Your task to perform on an android device: Find coffee shops on Maps Image 0: 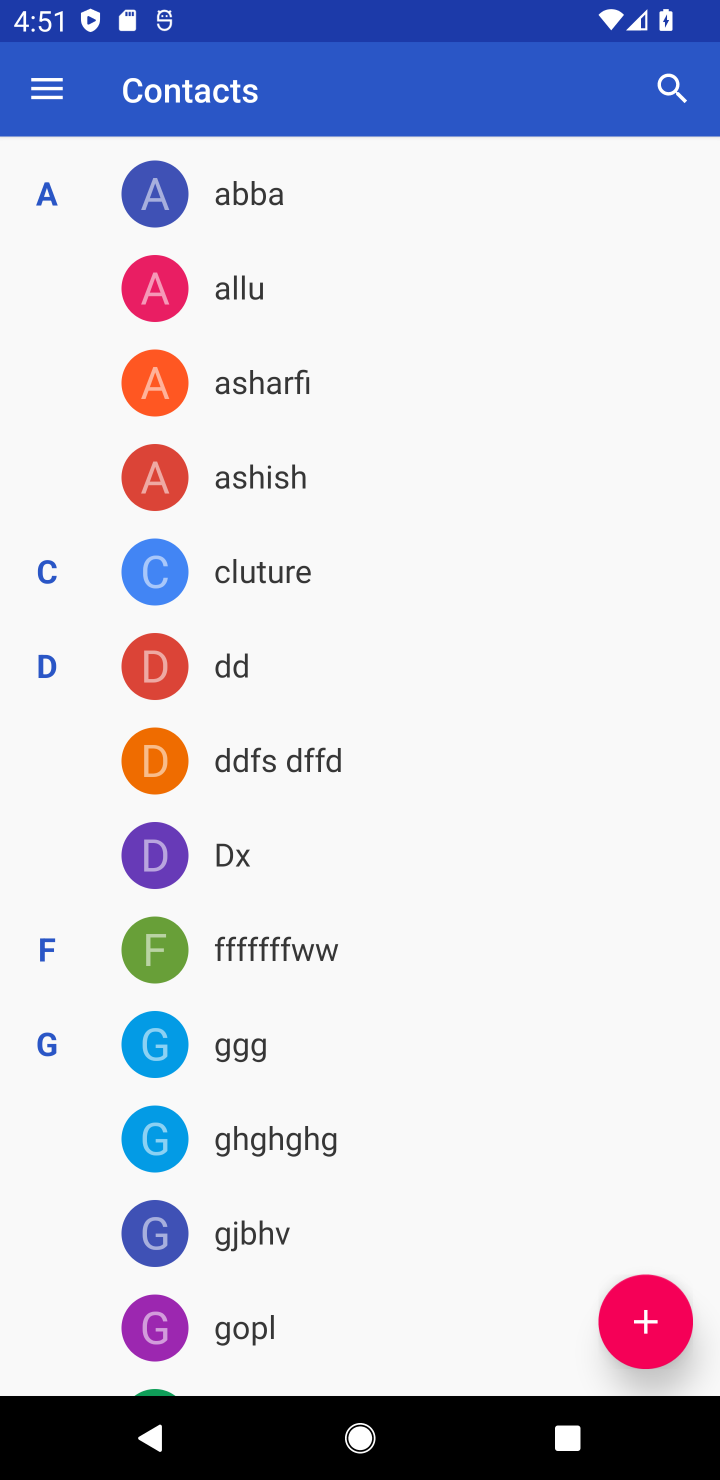
Step 0: press home button
Your task to perform on an android device: Find coffee shops on Maps Image 1: 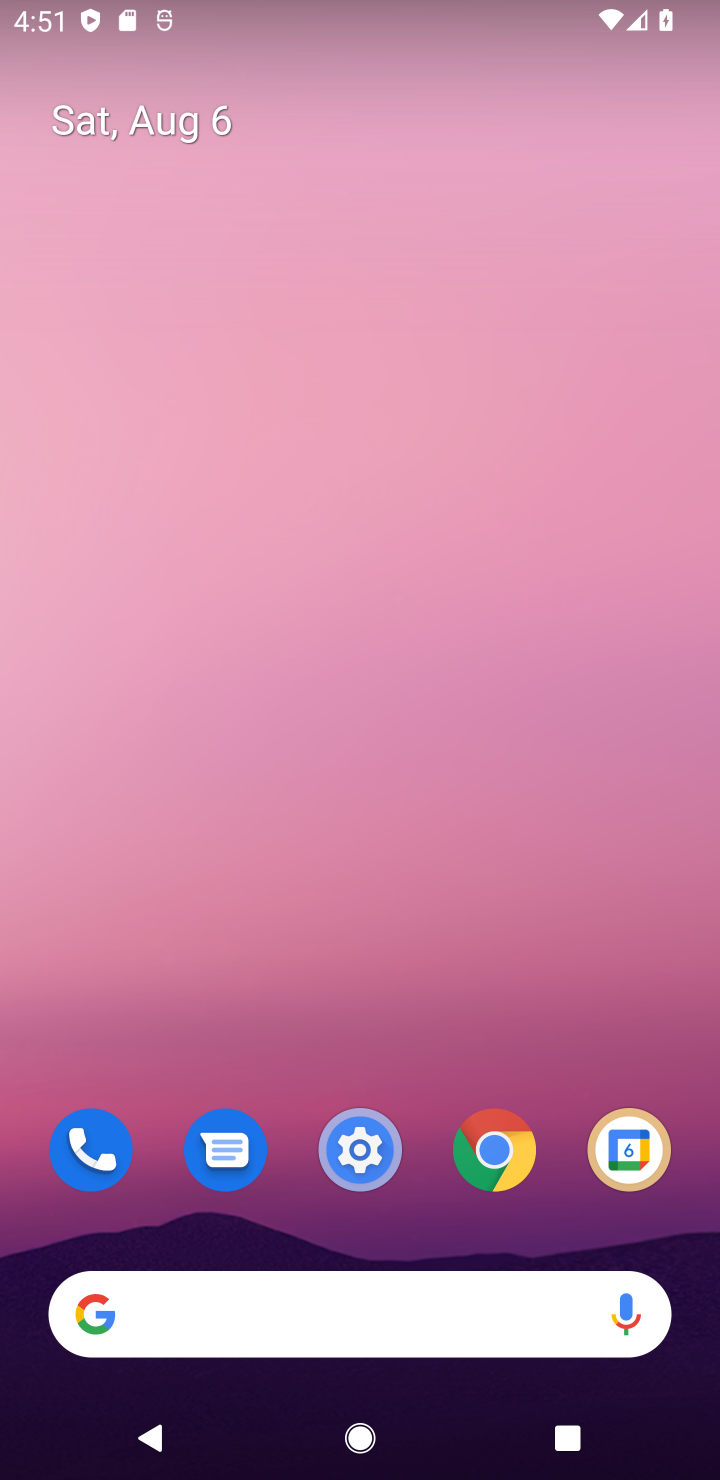
Step 1: drag from (467, 926) to (467, 212)
Your task to perform on an android device: Find coffee shops on Maps Image 2: 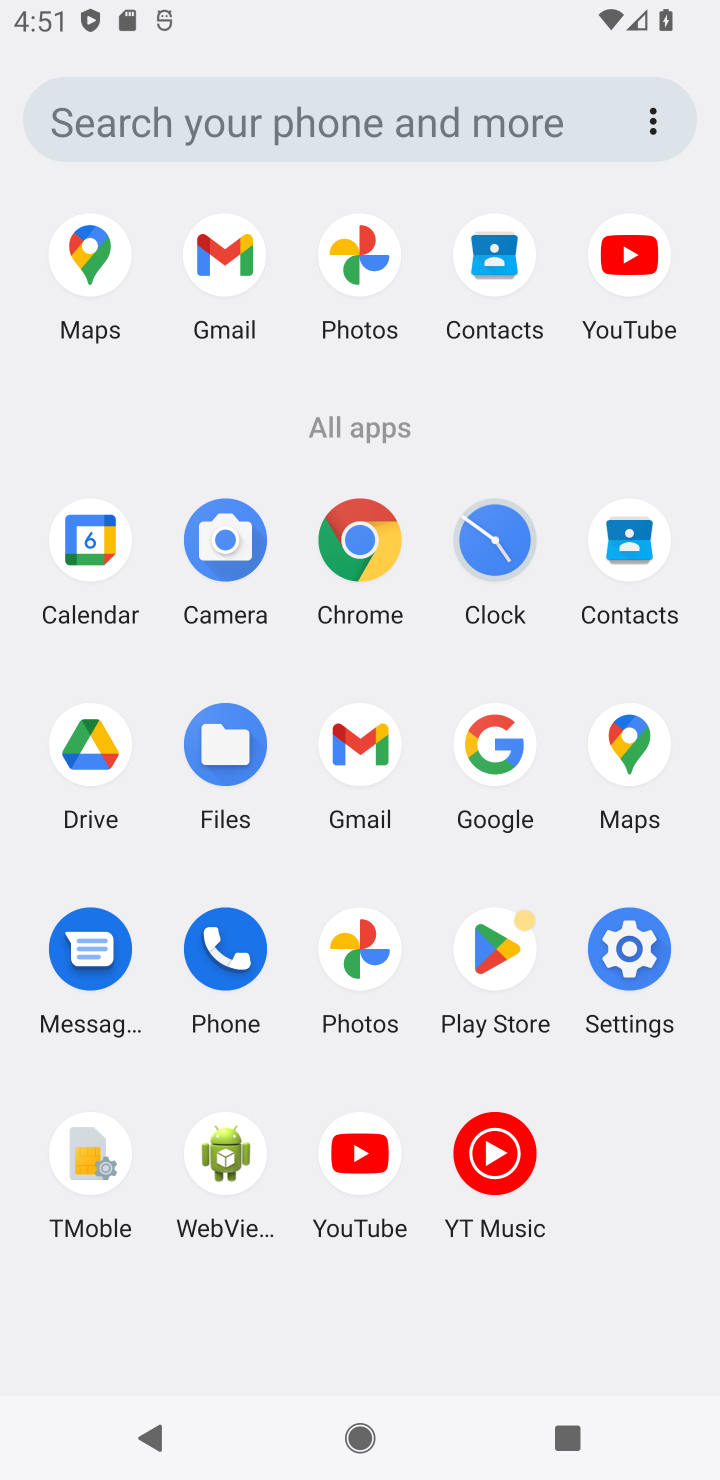
Step 2: click (623, 747)
Your task to perform on an android device: Find coffee shops on Maps Image 3: 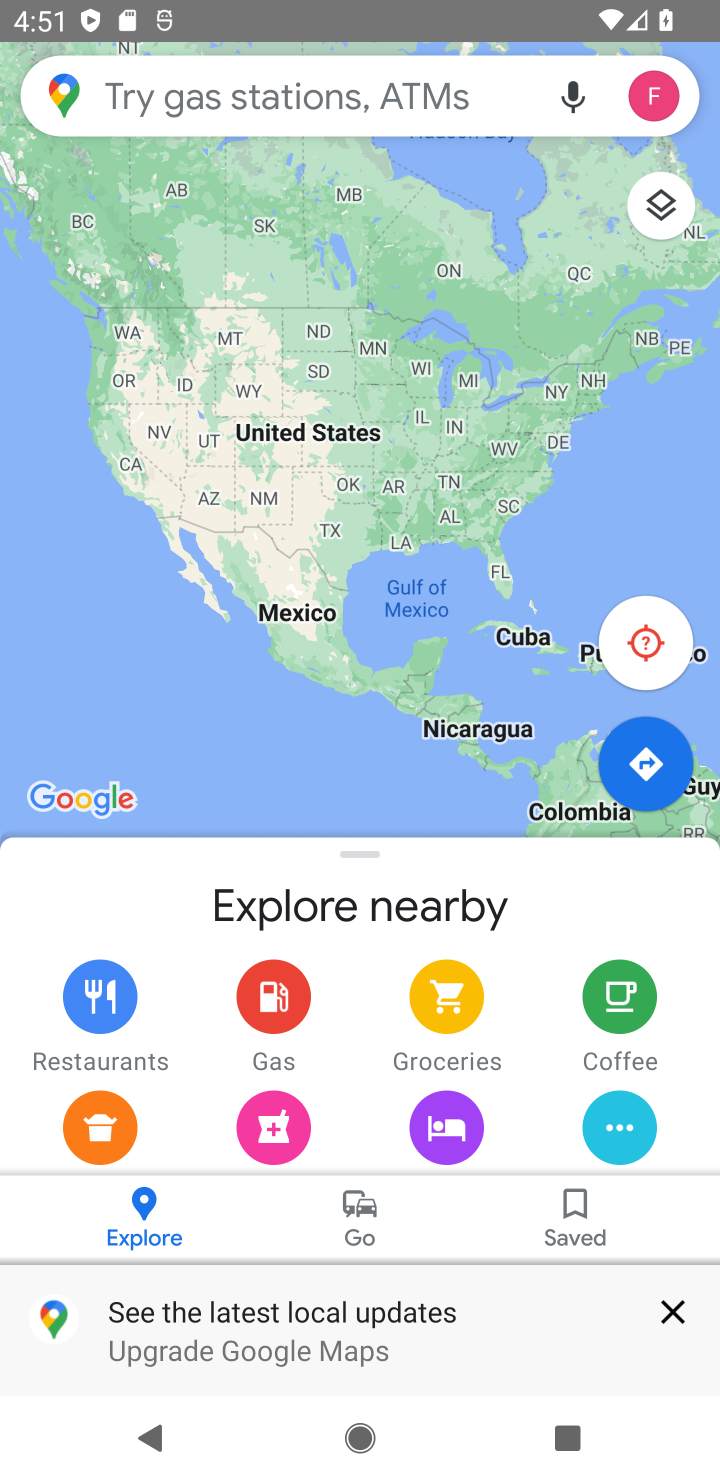
Step 3: click (228, 101)
Your task to perform on an android device: Find coffee shops on Maps Image 4: 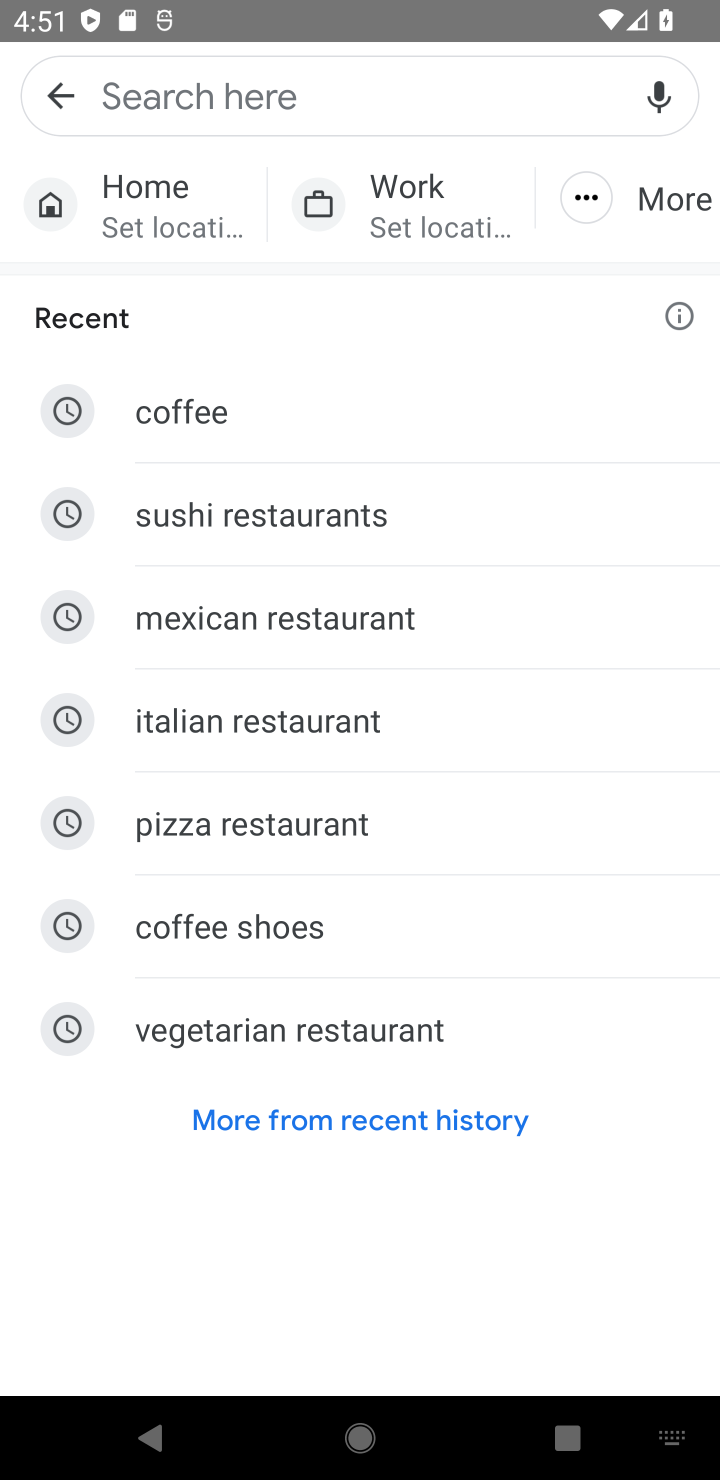
Step 4: type "coffee shops"
Your task to perform on an android device: Find coffee shops on Maps Image 5: 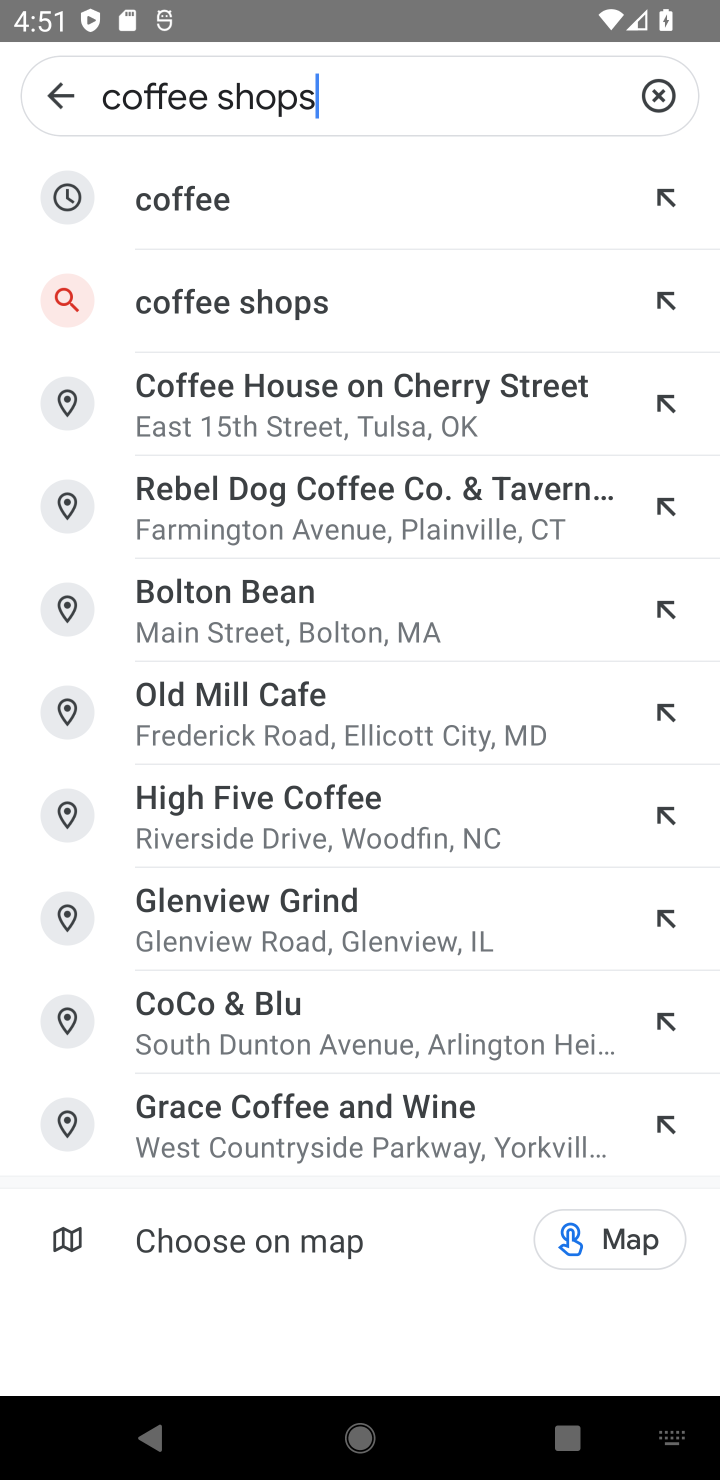
Step 5: click (277, 280)
Your task to perform on an android device: Find coffee shops on Maps Image 6: 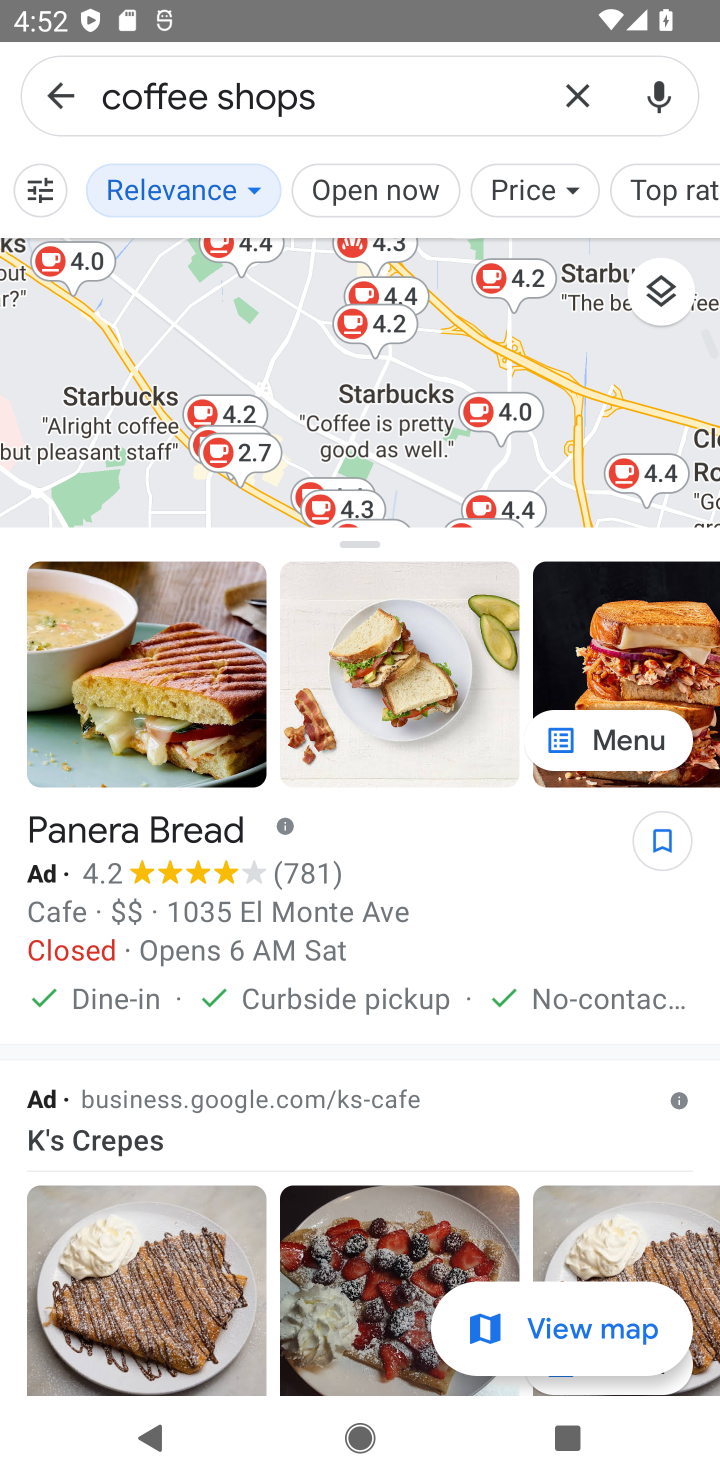
Step 6: task complete